Your task to perform on an android device: Open the map Image 0: 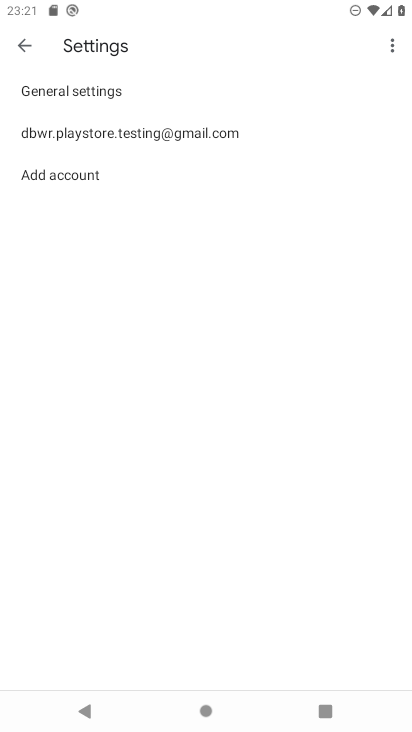
Step 0: press home button
Your task to perform on an android device: Open the map Image 1: 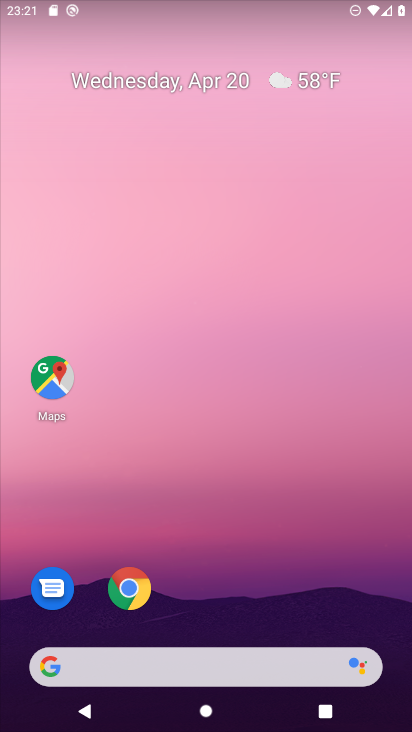
Step 1: drag from (232, 726) to (235, 89)
Your task to perform on an android device: Open the map Image 2: 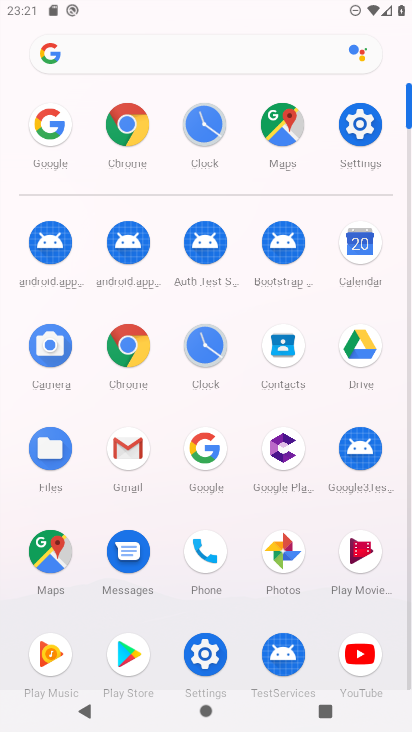
Step 2: click (284, 130)
Your task to perform on an android device: Open the map Image 3: 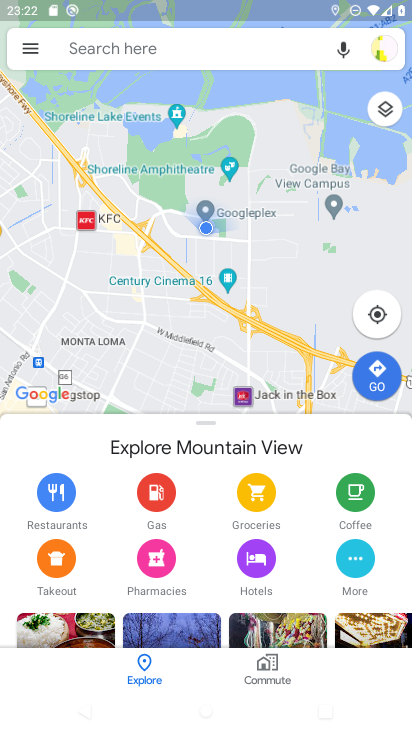
Step 3: task complete